Your task to perform on an android device: Show me popular videos on Youtube Image 0: 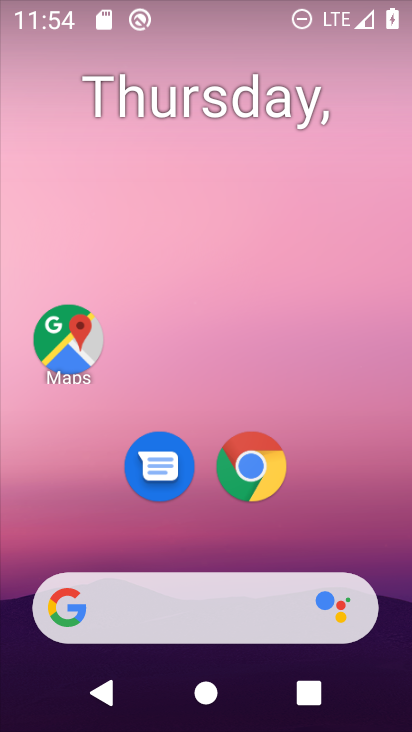
Step 0: drag from (274, 589) to (276, 64)
Your task to perform on an android device: Show me popular videos on Youtube Image 1: 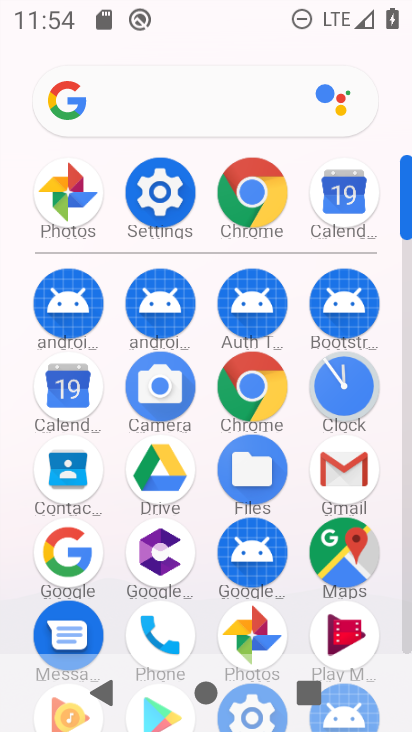
Step 1: drag from (290, 611) to (269, 370)
Your task to perform on an android device: Show me popular videos on Youtube Image 2: 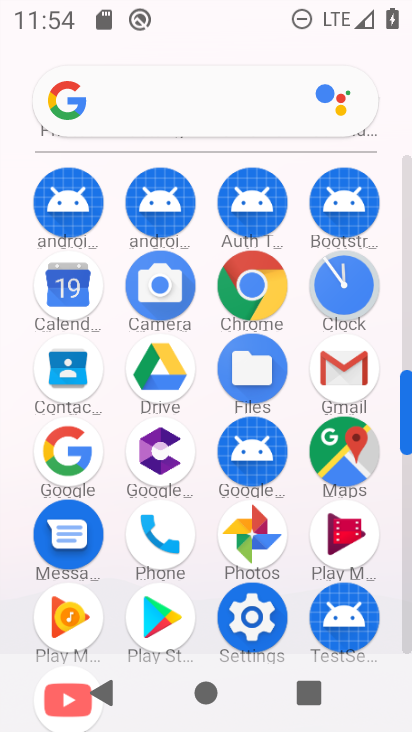
Step 2: drag from (110, 632) to (110, 568)
Your task to perform on an android device: Show me popular videos on Youtube Image 3: 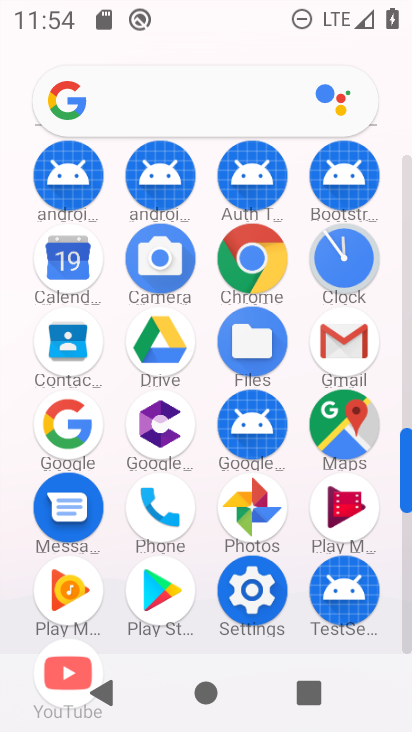
Step 3: click (86, 667)
Your task to perform on an android device: Show me popular videos on Youtube Image 4: 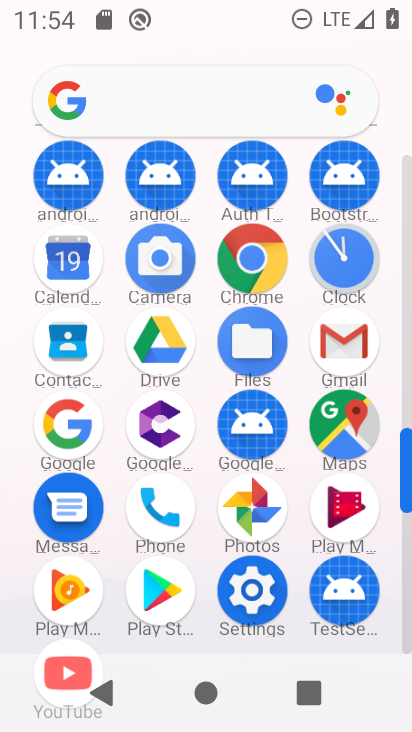
Step 4: click (76, 656)
Your task to perform on an android device: Show me popular videos on Youtube Image 5: 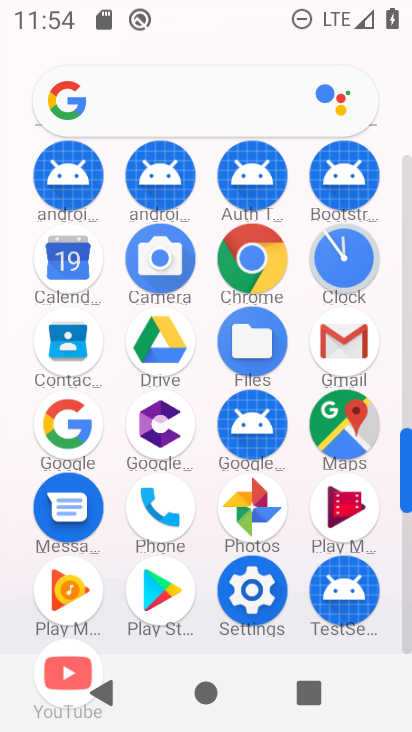
Step 5: drag from (124, 632) to (121, 200)
Your task to perform on an android device: Show me popular videos on Youtube Image 6: 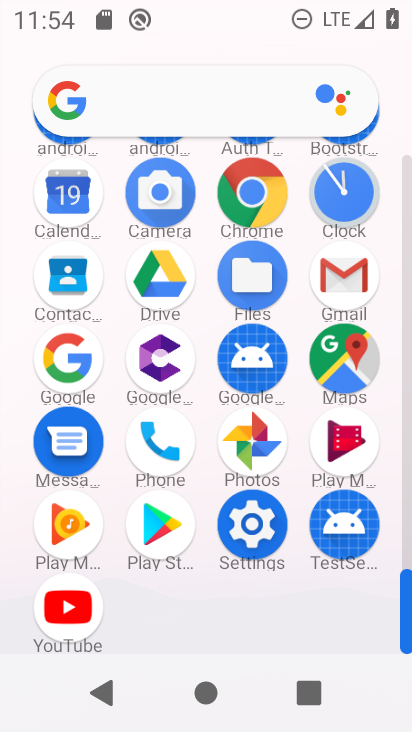
Step 6: click (68, 625)
Your task to perform on an android device: Show me popular videos on Youtube Image 7: 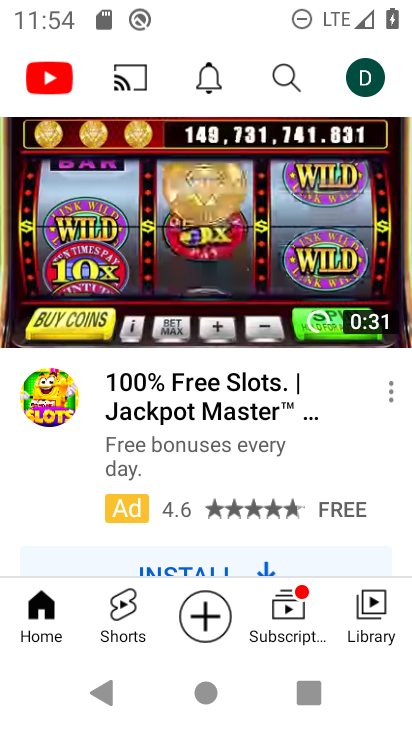
Step 7: task complete